Your task to perform on an android device: Go to sound settings Image 0: 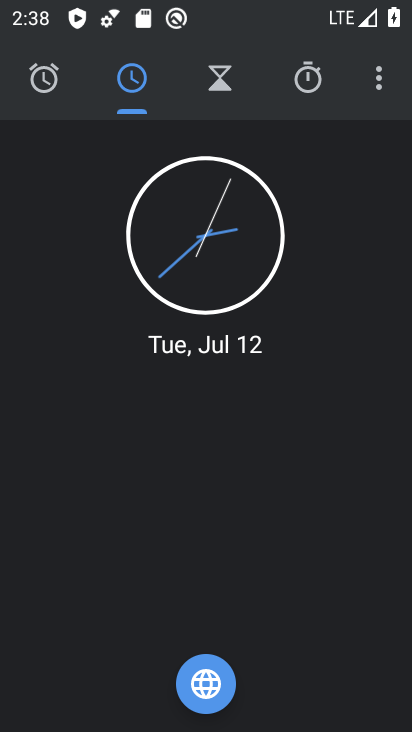
Step 0: press home button
Your task to perform on an android device: Go to sound settings Image 1: 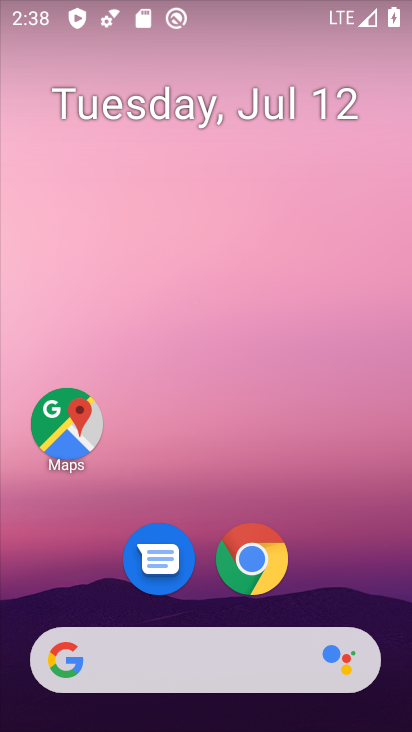
Step 1: drag from (360, 590) to (370, 125)
Your task to perform on an android device: Go to sound settings Image 2: 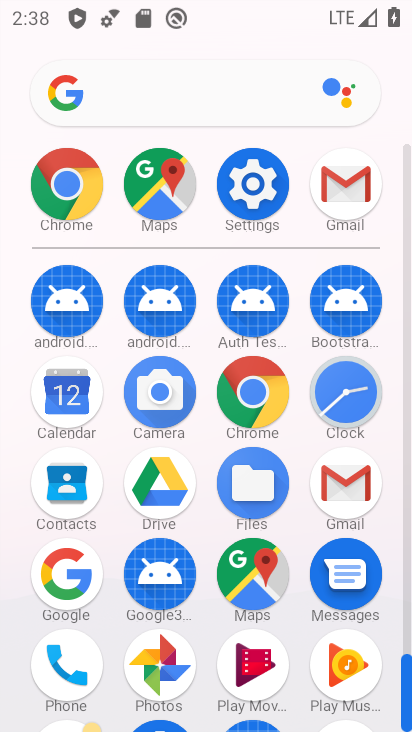
Step 2: click (262, 181)
Your task to perform on an android device: Go to sound settings Image 3: 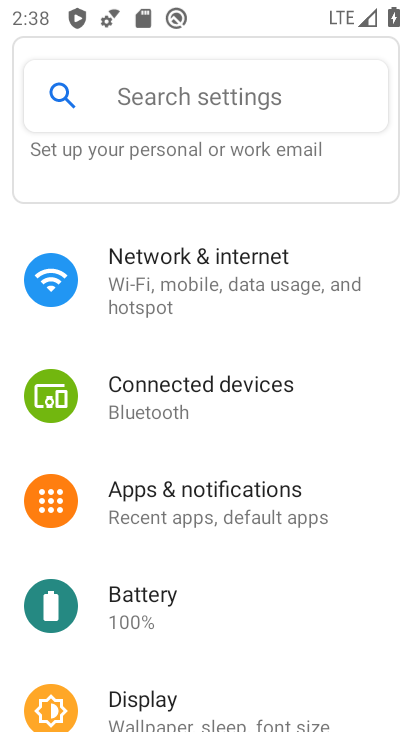
Step 3: drag from (364, 417) to (366, 348)
Your task to perform on an android device: Go to sound settings Image 4: 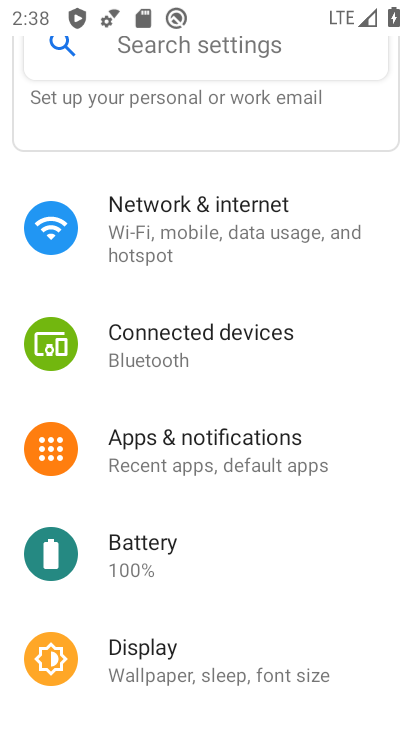
Step 4: drag from (366, 418) to (364, 345)
Your task to perform on an android device: Go to sound settings Image 5: 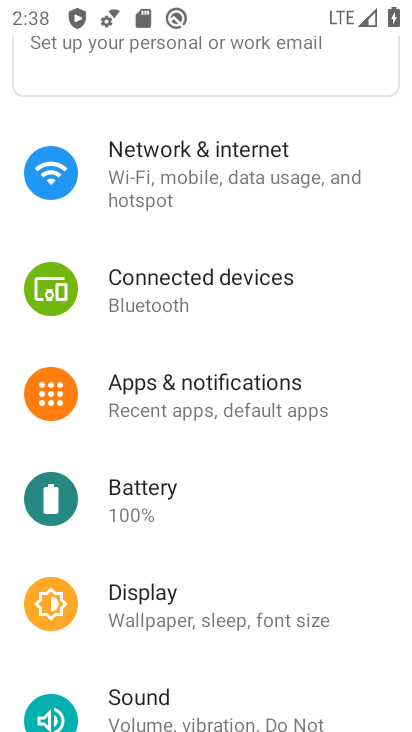
Step 5: drag from (363, 445) to (359, 295)
Your task to perform on an android device: Go to sound settings Image 6: 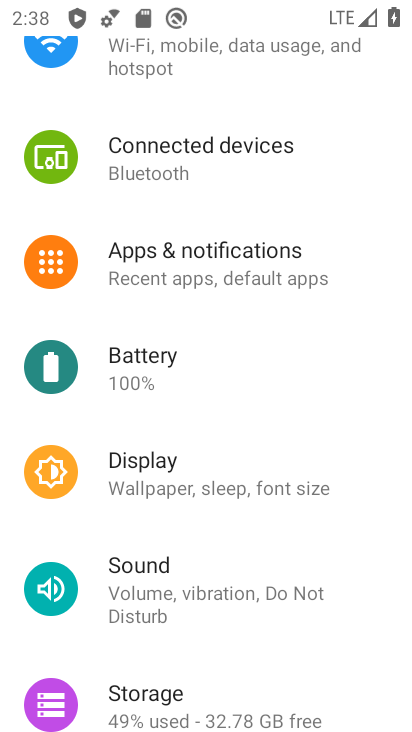
Step 6: drag from (367, 437) to (369, 375)
Your task to perform on an android device: Go to sound settings Image 7: 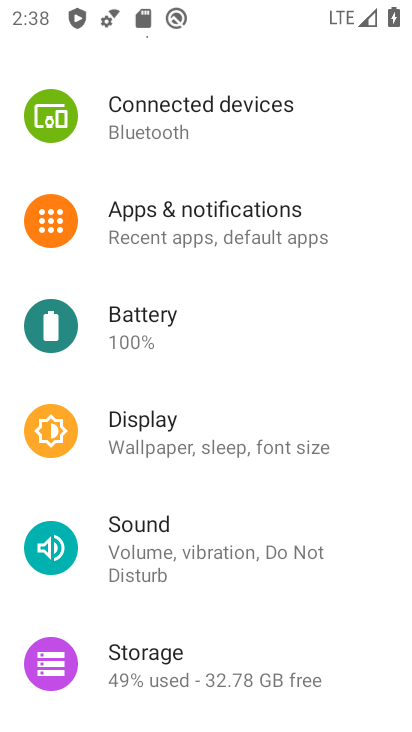
Step 7: drag from (364, 433) to (362, 359)
Your task to perform on an android device: Go to sound settings Image 8: 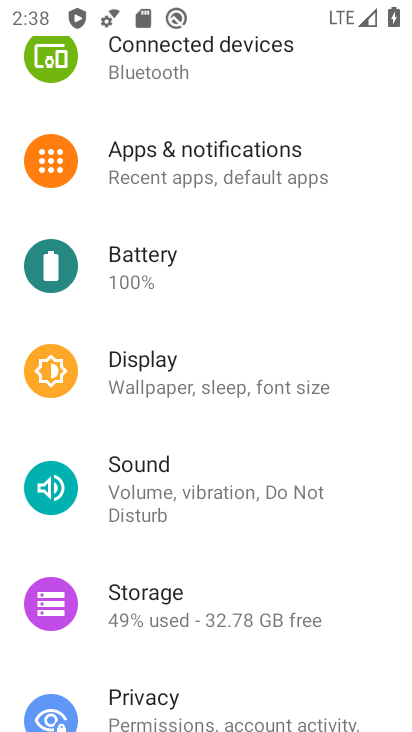
Step 8: drag from (350, 422) to (350, 343)
Your task to perform on an android device: Go to sound settings Image 9: 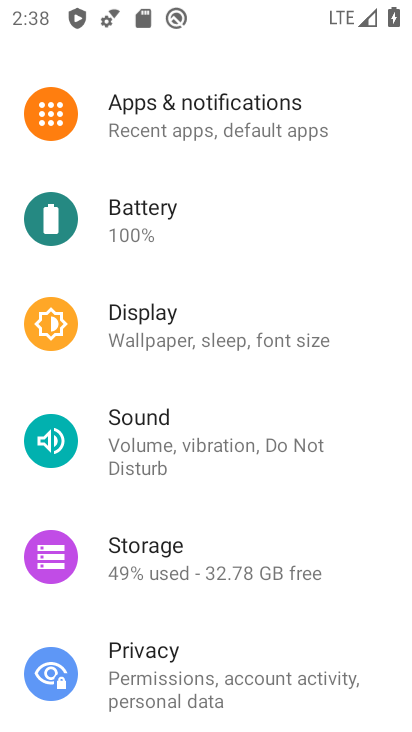
Step 9: drag from (360, 408) to (363, 330)
Your task to perform on an android device: Go to sound settings Image 10: 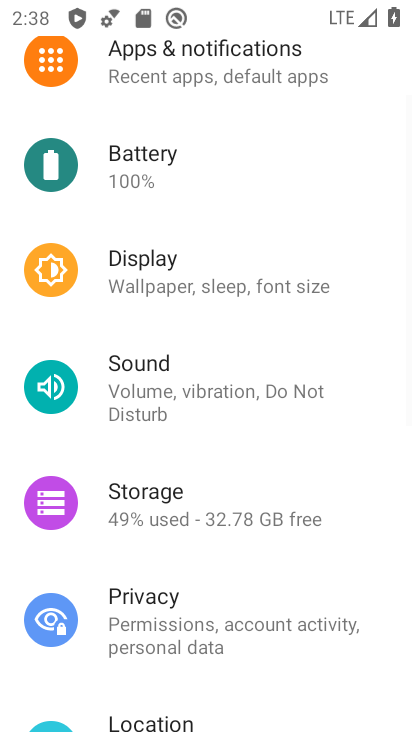
Step 10: drag from (363, 400) to (361, 335)
Your task to perform on an android device: Go to sound settings Image 11: 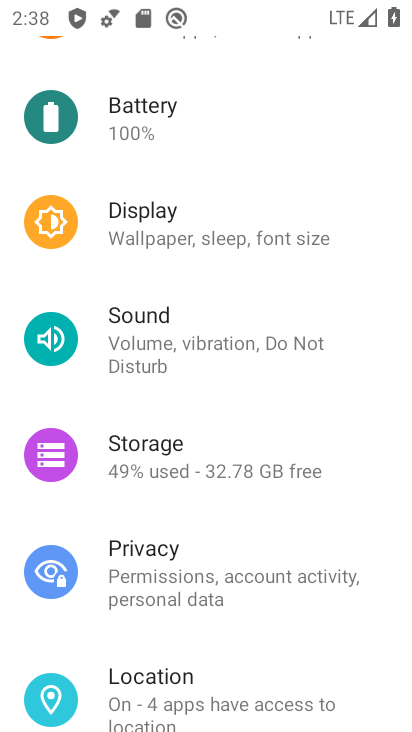
Step 11: drag from (353, 393) to (356, 326)
Your task to perform on an android device: Go to sound settings Image 12: 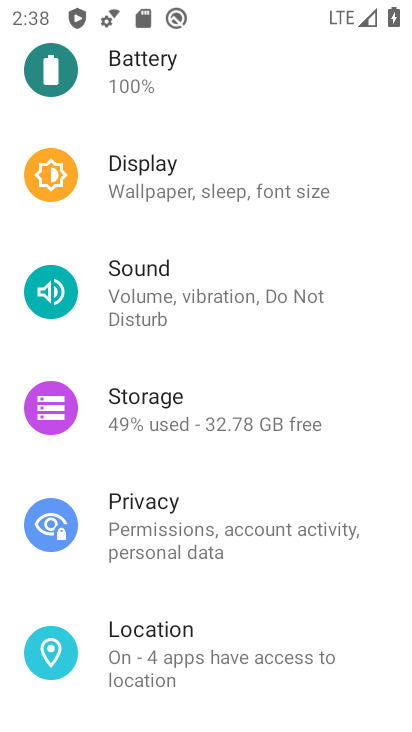
Step 12: click (320, 284)
Your task to perform on an android device: Go to sound settings Image 13: 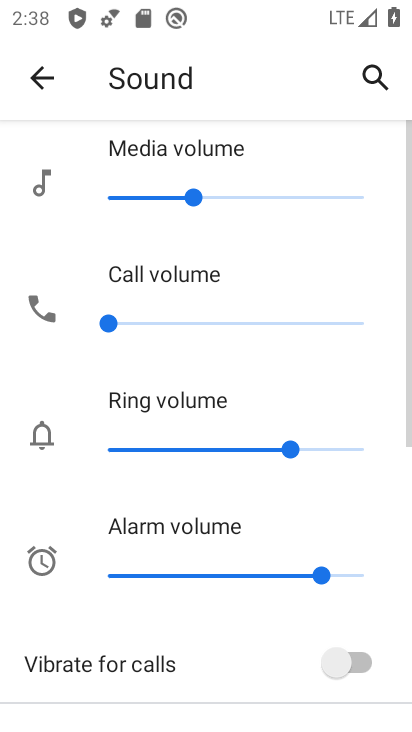
Step 13: task complete